Your task to perform on an android device: turn on sleep mode Image 0: 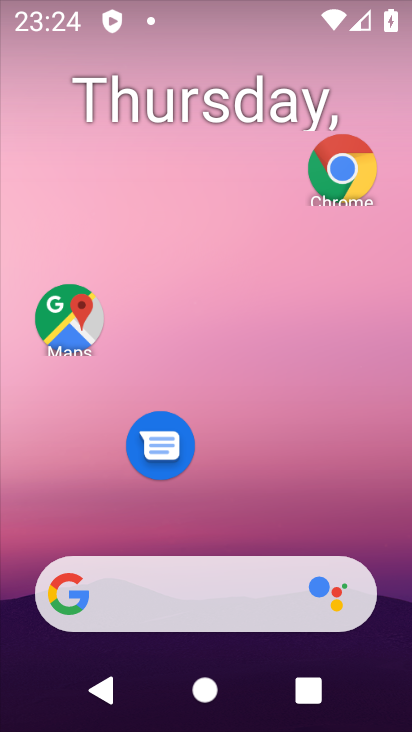
Step 0: click (369, 127)
Your task to perform on an android device: turn on sleep mode Image 1: 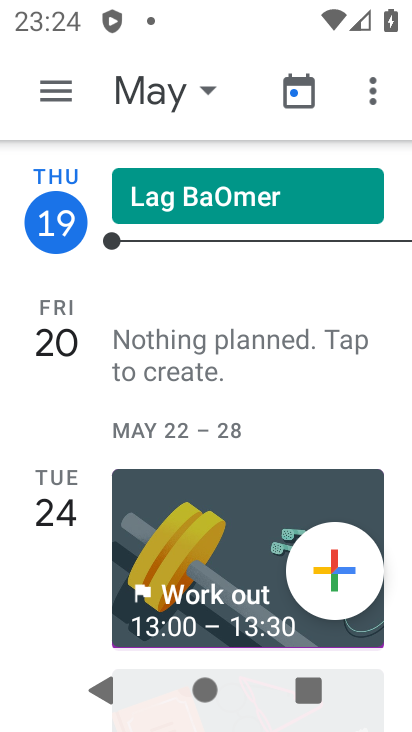
Step 1: drag from (251, 460) to (379, 113)
Your task to perform on an android device: turn on sleep mode Image 2: 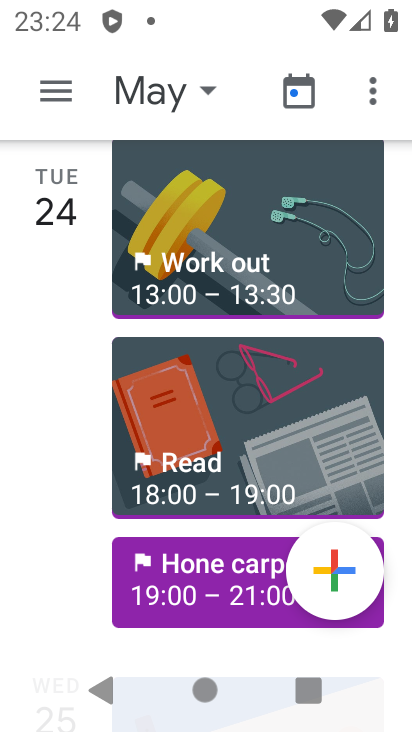
Step 2: press home button
Your task to perform on an android device: turn on sleep mode Image 3: 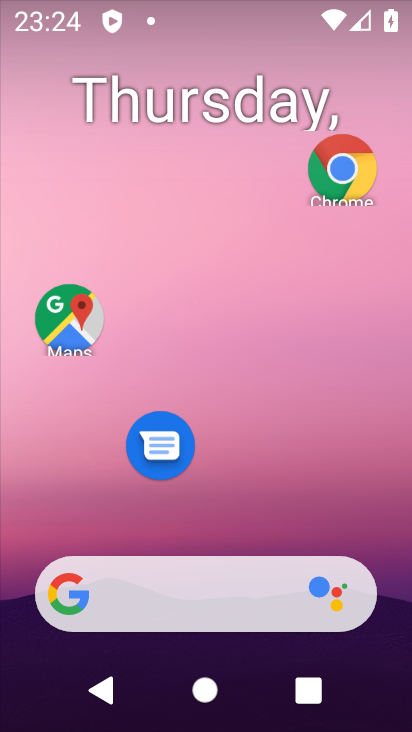
Step 3: drag from (234, 506) to (351, 43)
Your task to perform on an android device: turn on sleep mode Image 4: 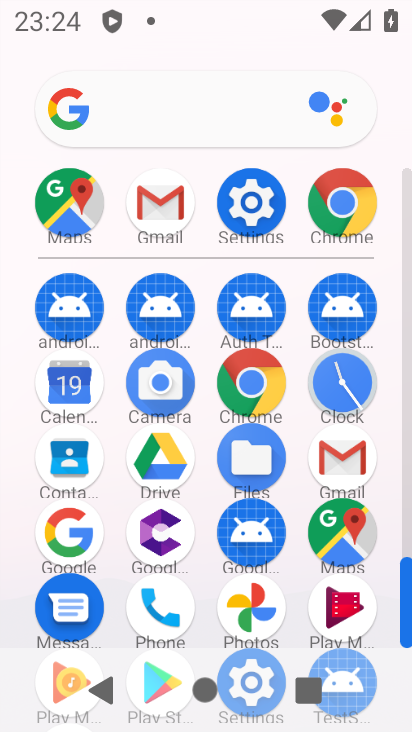
Step 4: drag from (264, 184) to (257, 287)
Your task to perform on an android device: turn on sleep mode Image 5: 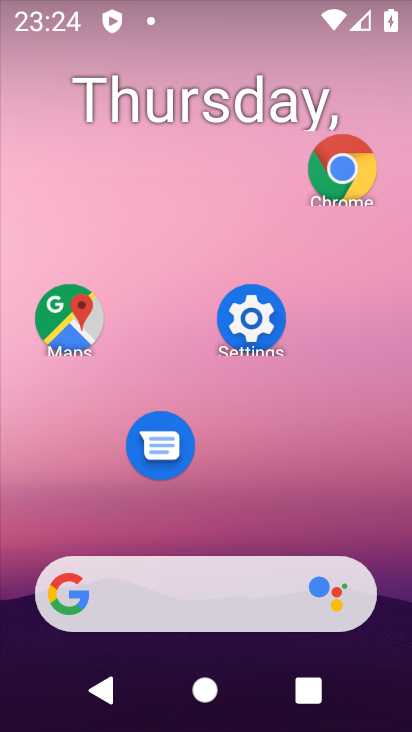
Step 5: click (252, 306)
Your task to perform on an android device: turn on sleep mode Image 6: 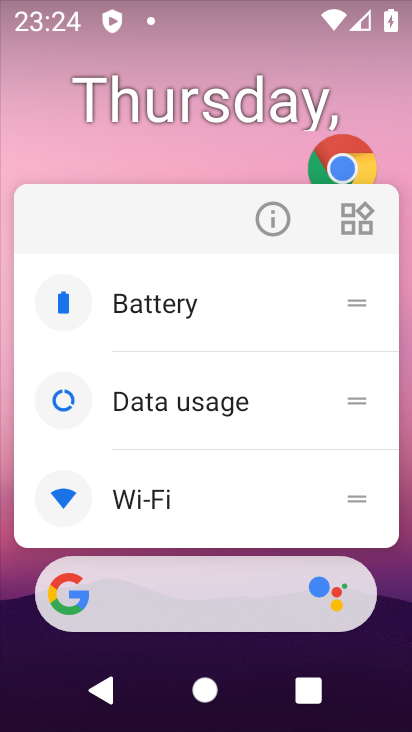
Step 6: click (272, 216)
Your task to perform on an android device: turn on sleep mode Image 7: 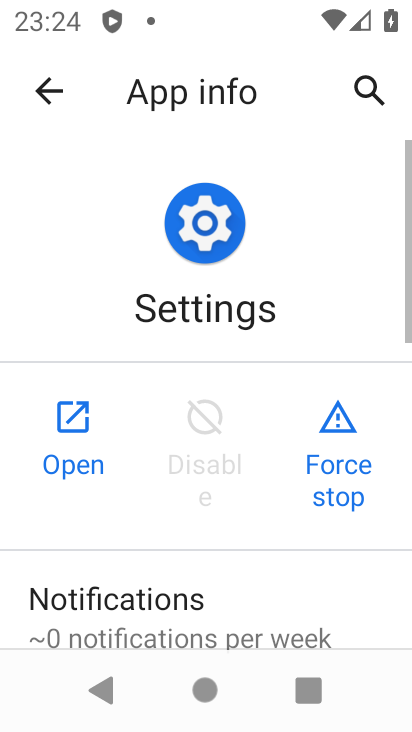
Step 7: click (63, 418)
Your task to perform on an android device: turn on sleep mode Image 8: 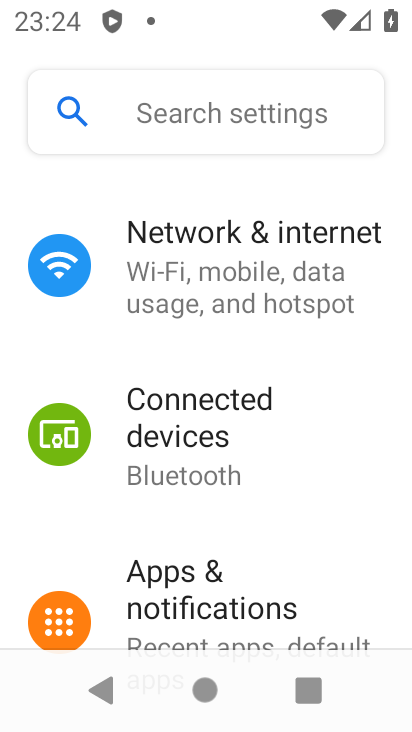
Step 8: drag from (243, 578) to (390, 87)
Your task to perform on an android device: turn on sleep mode Image 9: 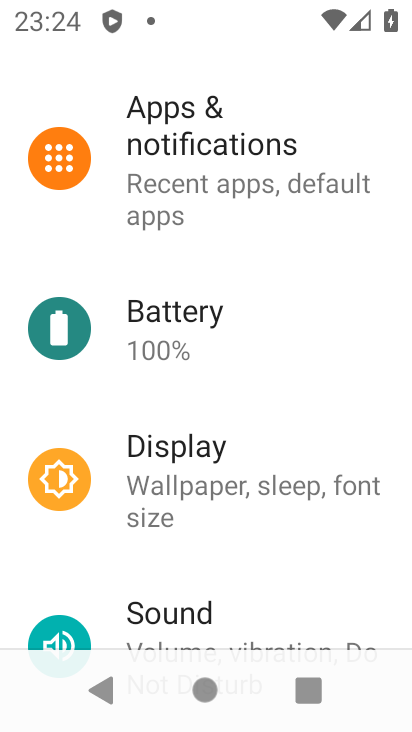
Step 9: click (199, 439)
Your task to perform on an android device: turn on sleep mode Image 10: 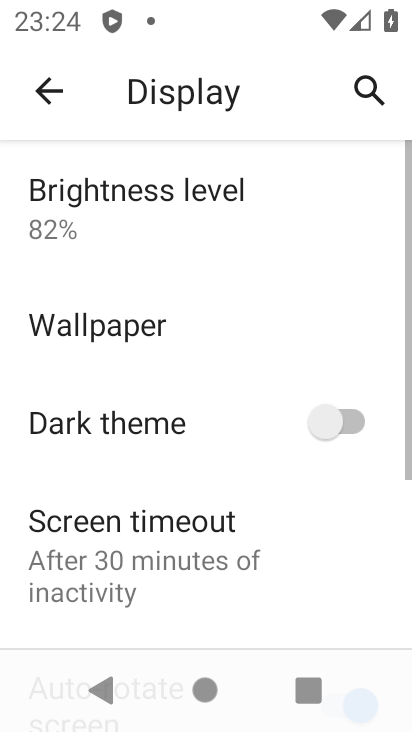
Step 10: drag from (255, 524) to (375, 342)
Your task to perform on an android device: turn on sleep mode Image 11: 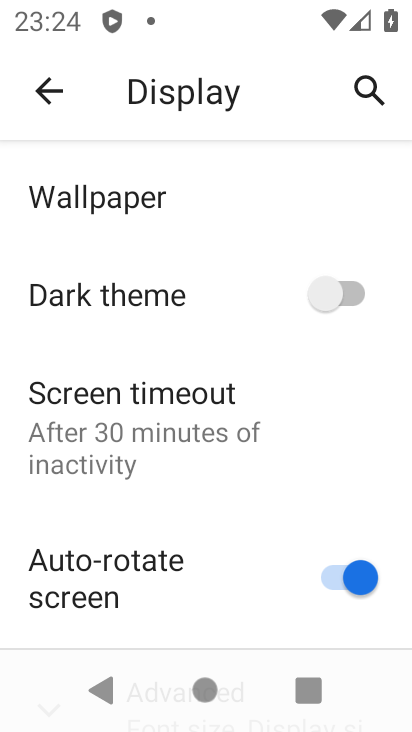
Step 11: click (219, 413)
Your task to perform on an android device: turn on sleep mode Image 12: 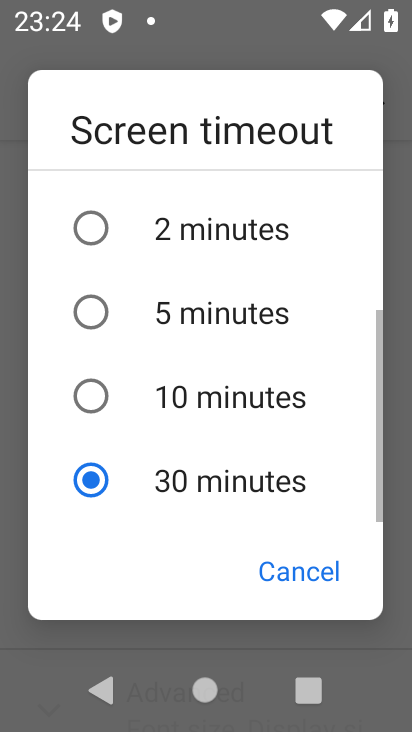
Step 12: task complete